Your task to perform on an android device: change the clock display to show seconds Image 0: 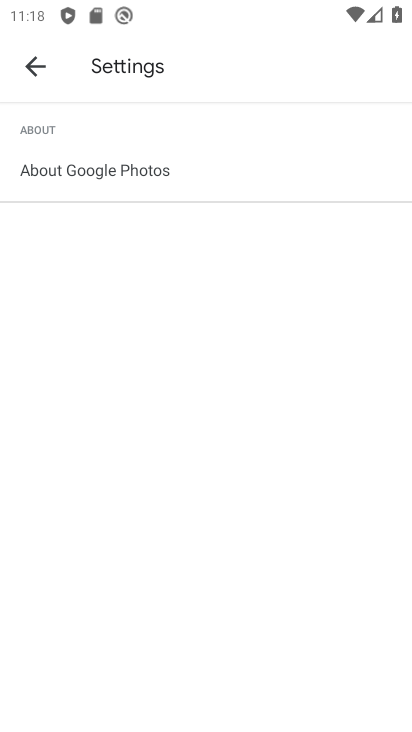
Step 0: press home button
Your task to perform on an android device: change the clock display to show seconds Image 1: 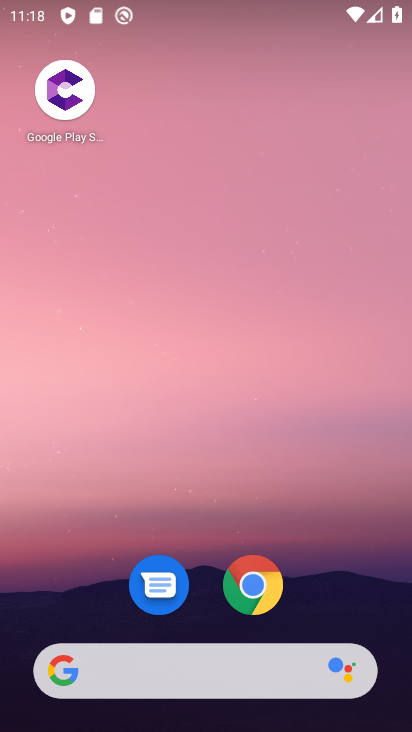
Step 1: drag from (165, 613) to (298, 61)
Your task to perform on an android device: change the clock display to show seconds Image 2: 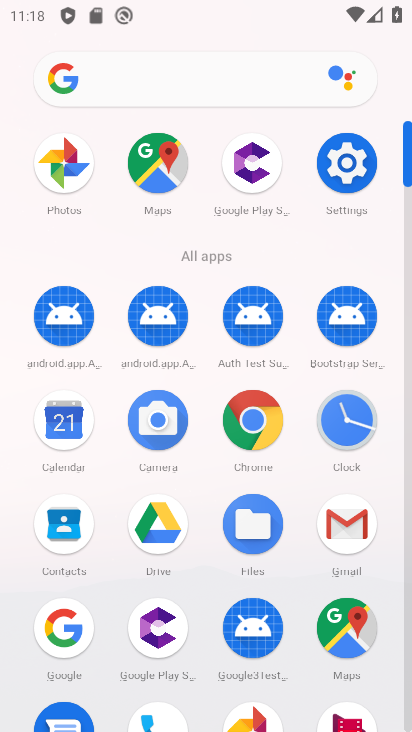
Step 2: click (351, 416)
Your task to perform on an android device: change the clock display to show seconds Image 3: 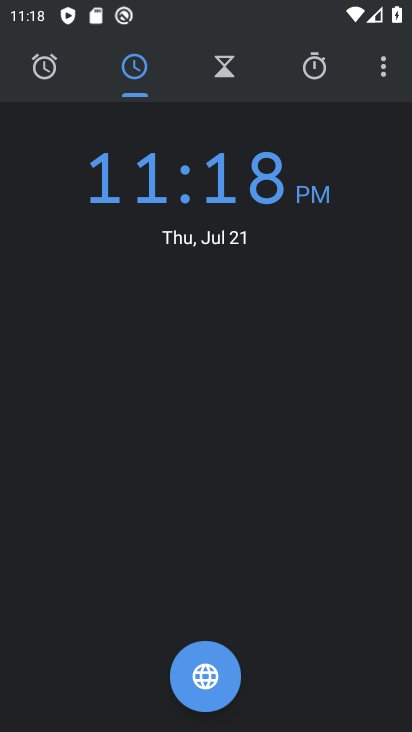
Step 3: click (381, 78)
Your task to perform on an android device: change the clock display to show seconds Image 4: 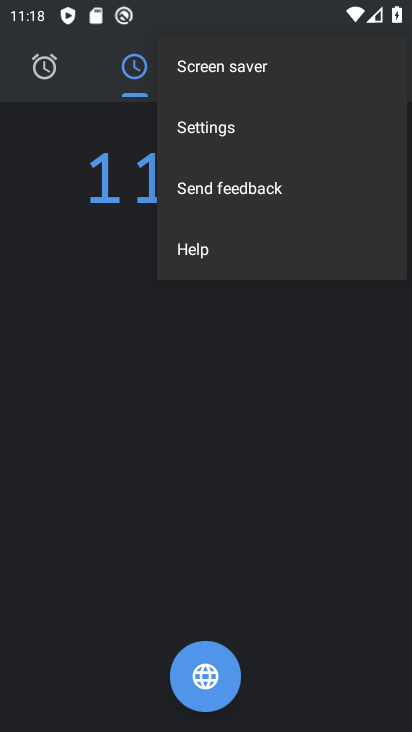
Step 4: click (244, 133)
Your task to perform on an android device: change the clock display to show seconds Image 5: 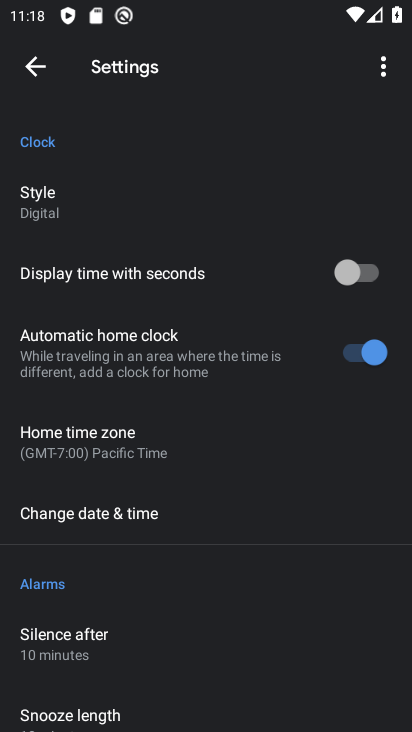
Step 5: click (366, 278)
Your task to perform on an android device: change the clock display to show seconds Image 6: 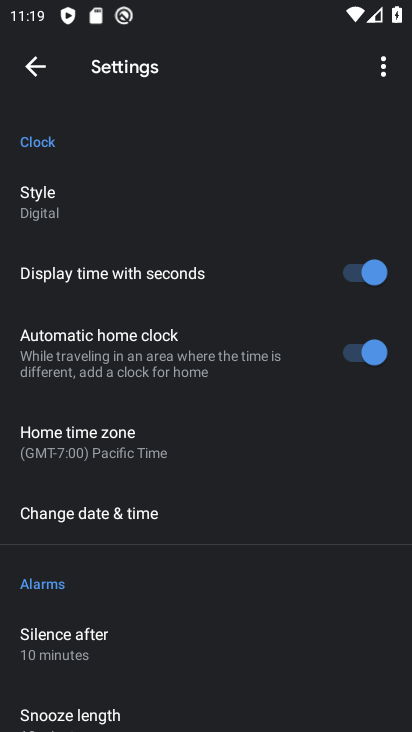
Step 6: task complete